Your task to perform on an android device: Open accessibility settings Image 0: 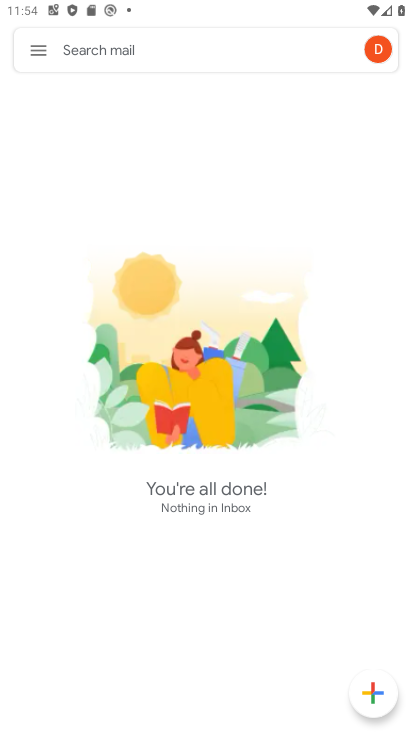
Step 0: press home button
Your task to perform on an android device: Open accessibility settings Image 1: 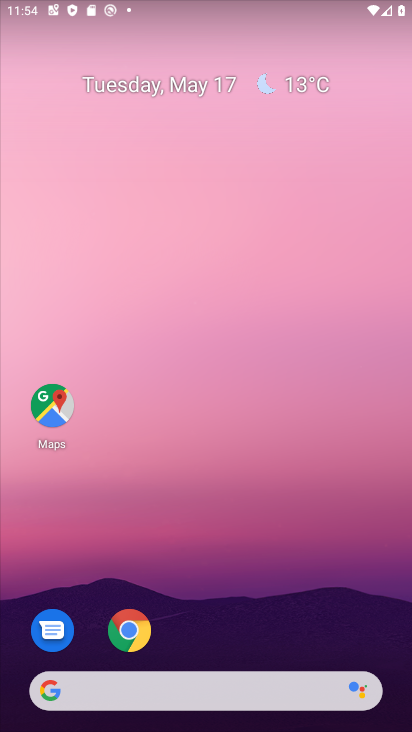
Step 1: drag from (205, 709) to (195, 168)
Your task to perform on an android device: Open accessibility settings Image 2: 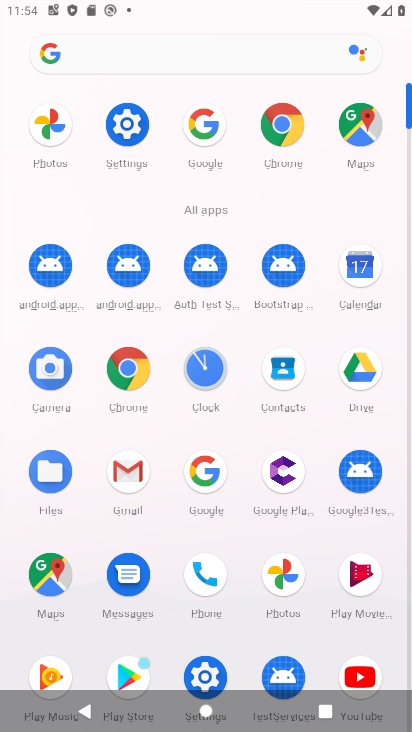
Step 2: click (123, 126)
Your task to perform on an android device: Open accessibility settings Image 3: 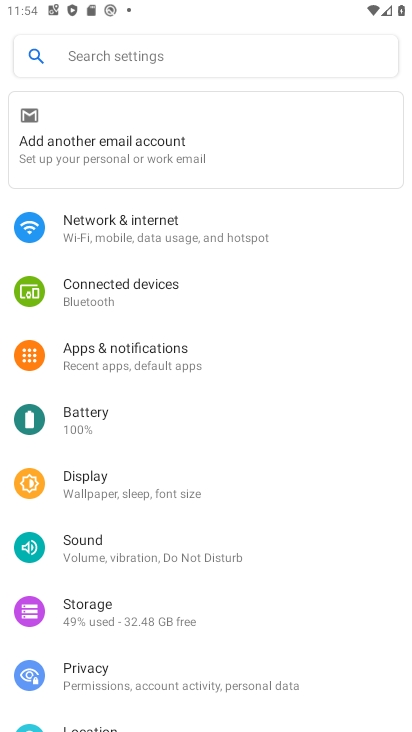
Step 3: drag from (114, 694) to (126, 254)
Your task to perform on an android device: Open accessibility settings Image 4: 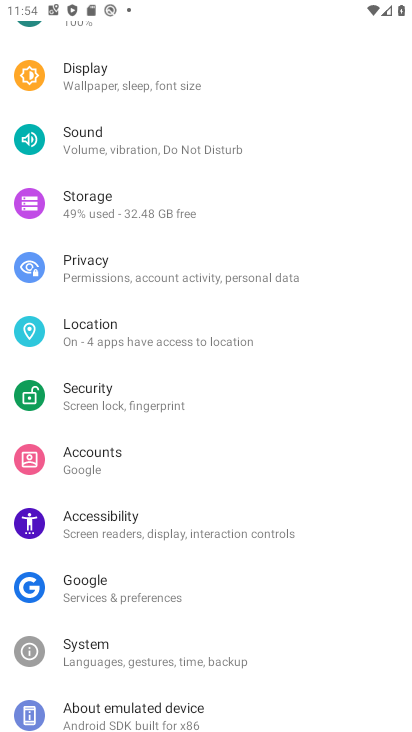
Step 4: drag from (120, 678) to (127, 349)
Your task to perform on an android device: Open accessibility settings Image 5: 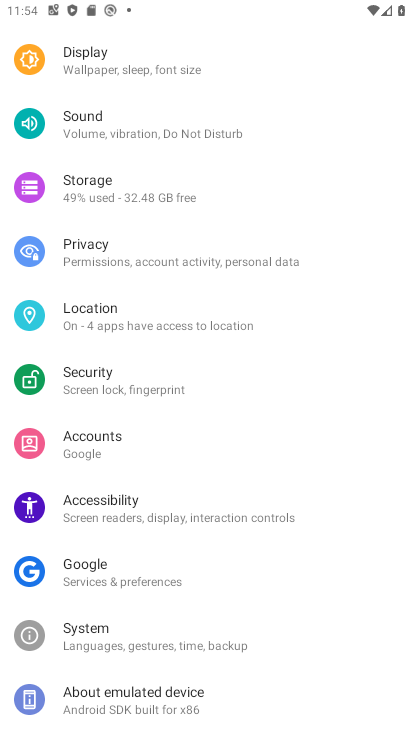
Step 5: click (91, 493)
Your task to perform on an android device: Open accessibility settings Image 6: 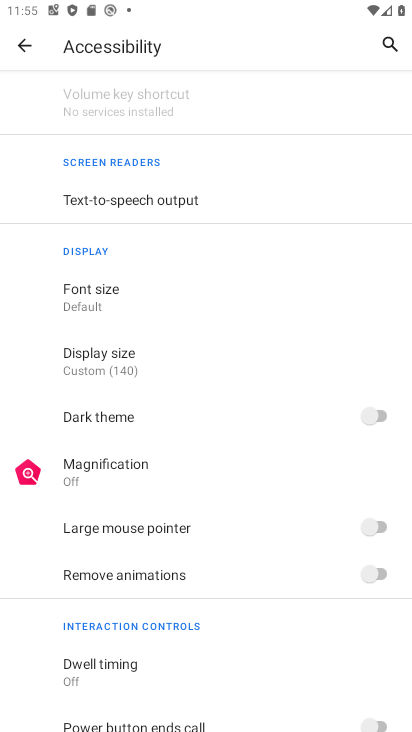
Step 6: task complete